Your task to perform on an android device: empty trash in google photos Image 0: 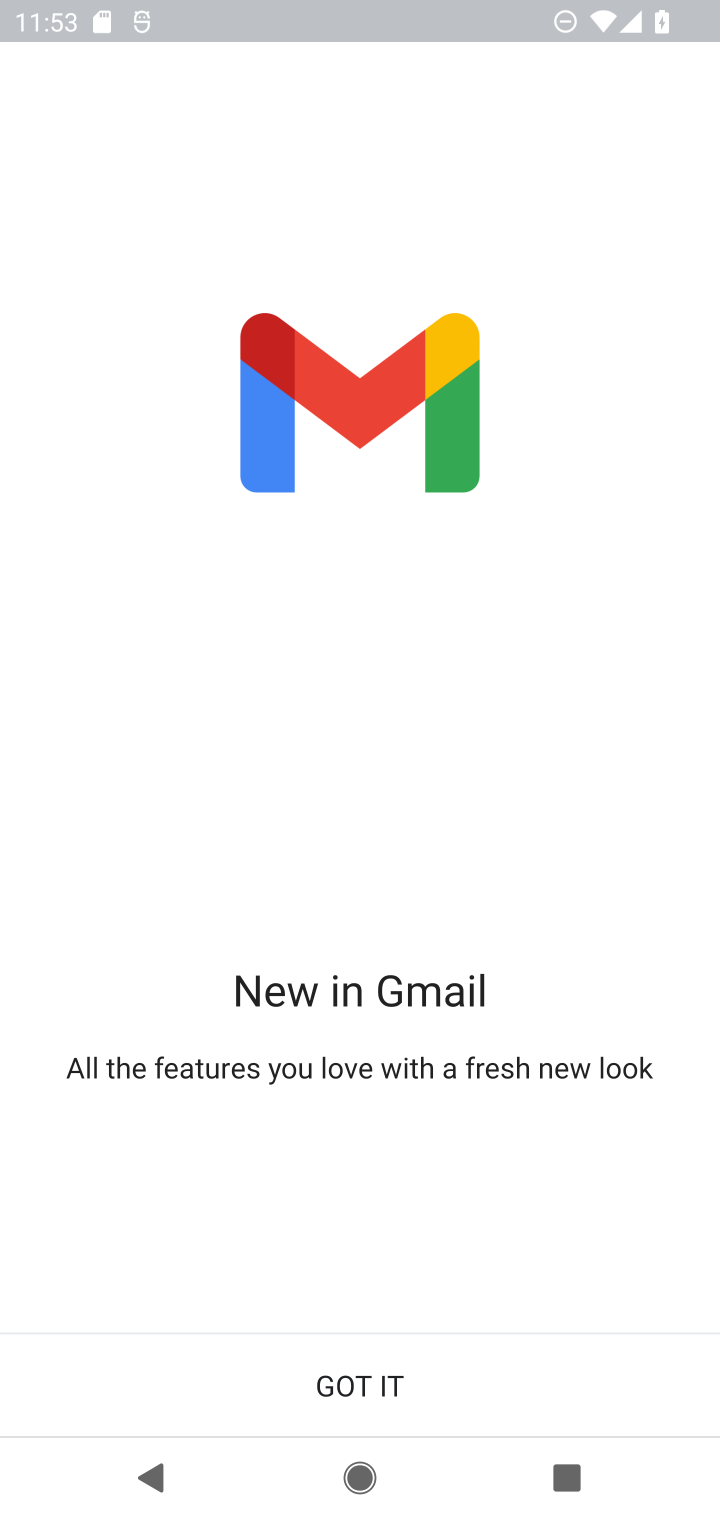
Step 0: press home button
Your task to perform on an android device: empty trash in google photos Image 1: 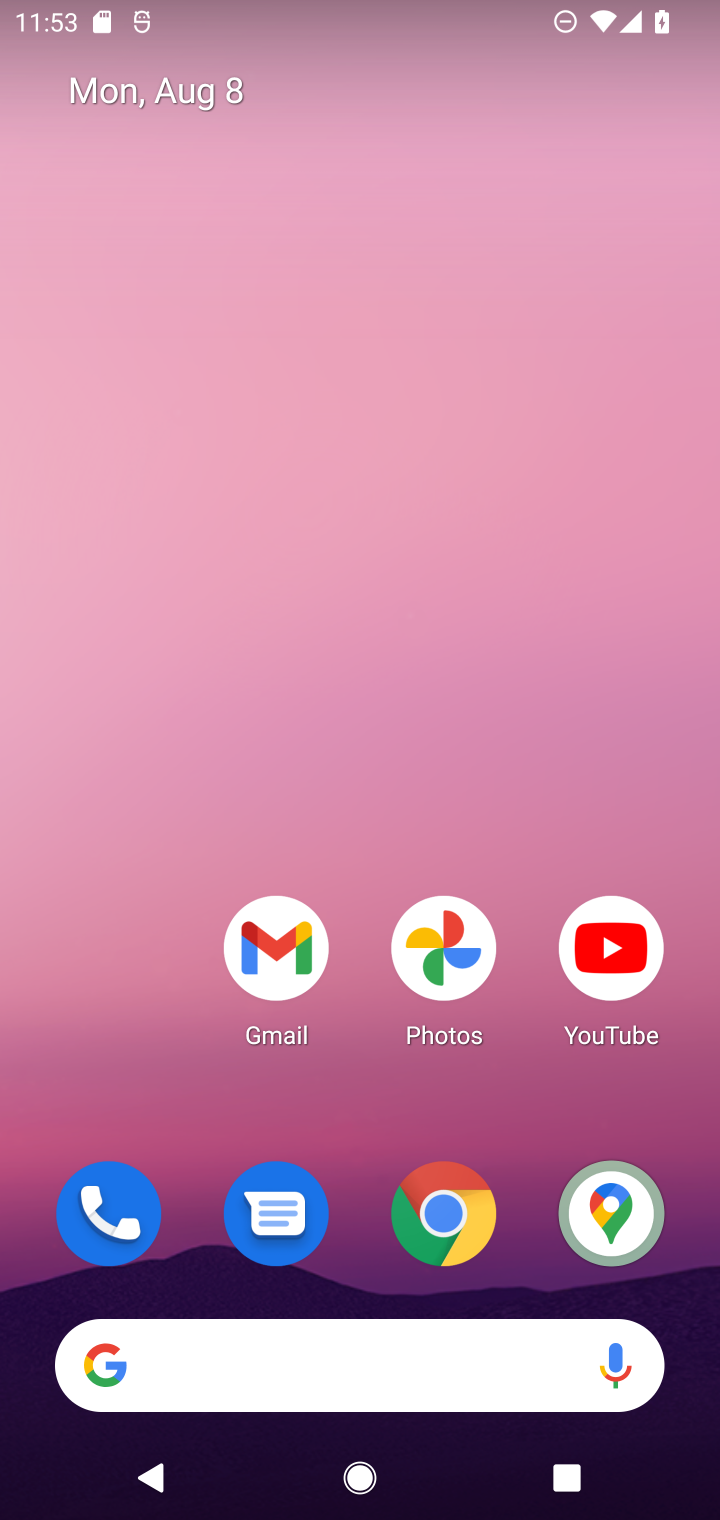
Step 1: click (446, 934)
Your task to perform on an android device: empty trash in google photos Image 2: 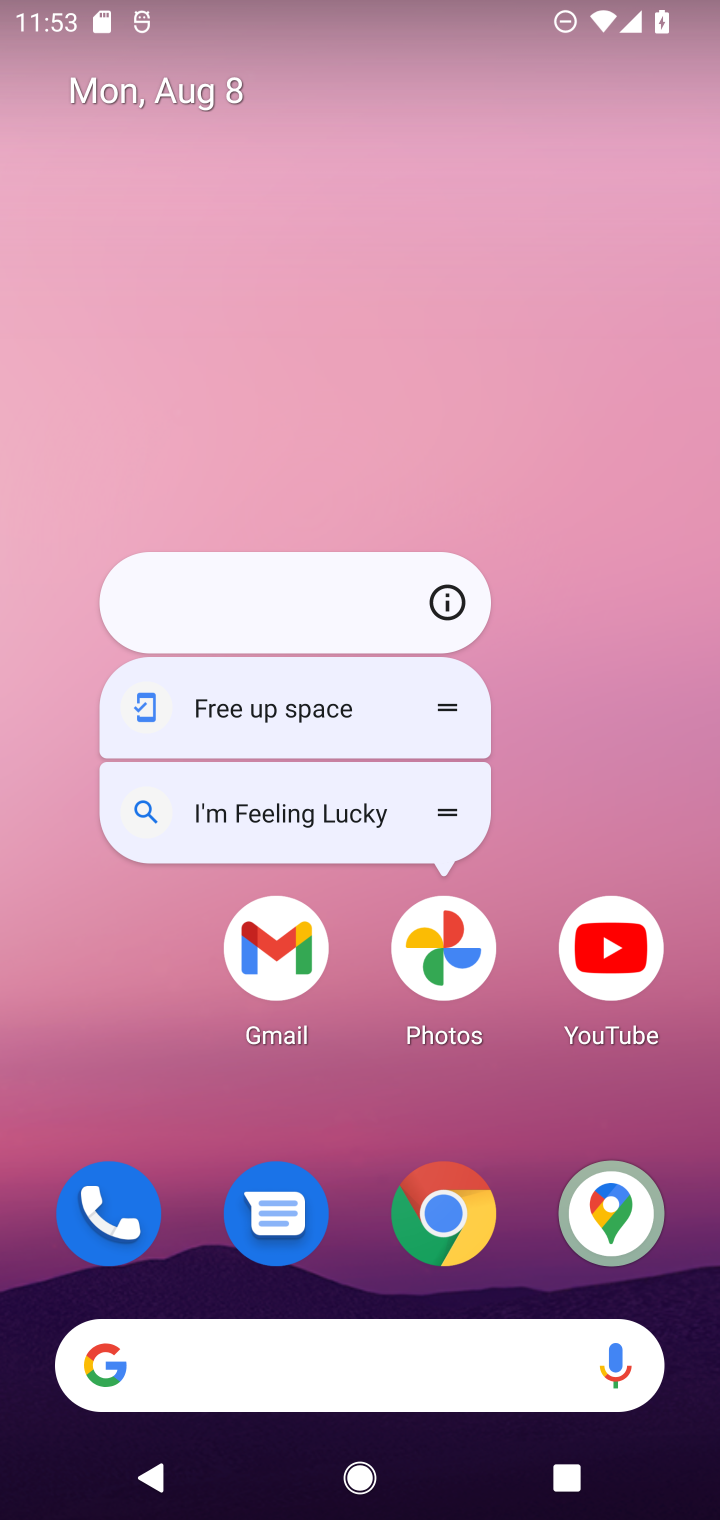
Step 2: click (553, 732)
Your task to perform on an android device: empty trash in google photos Image 3: 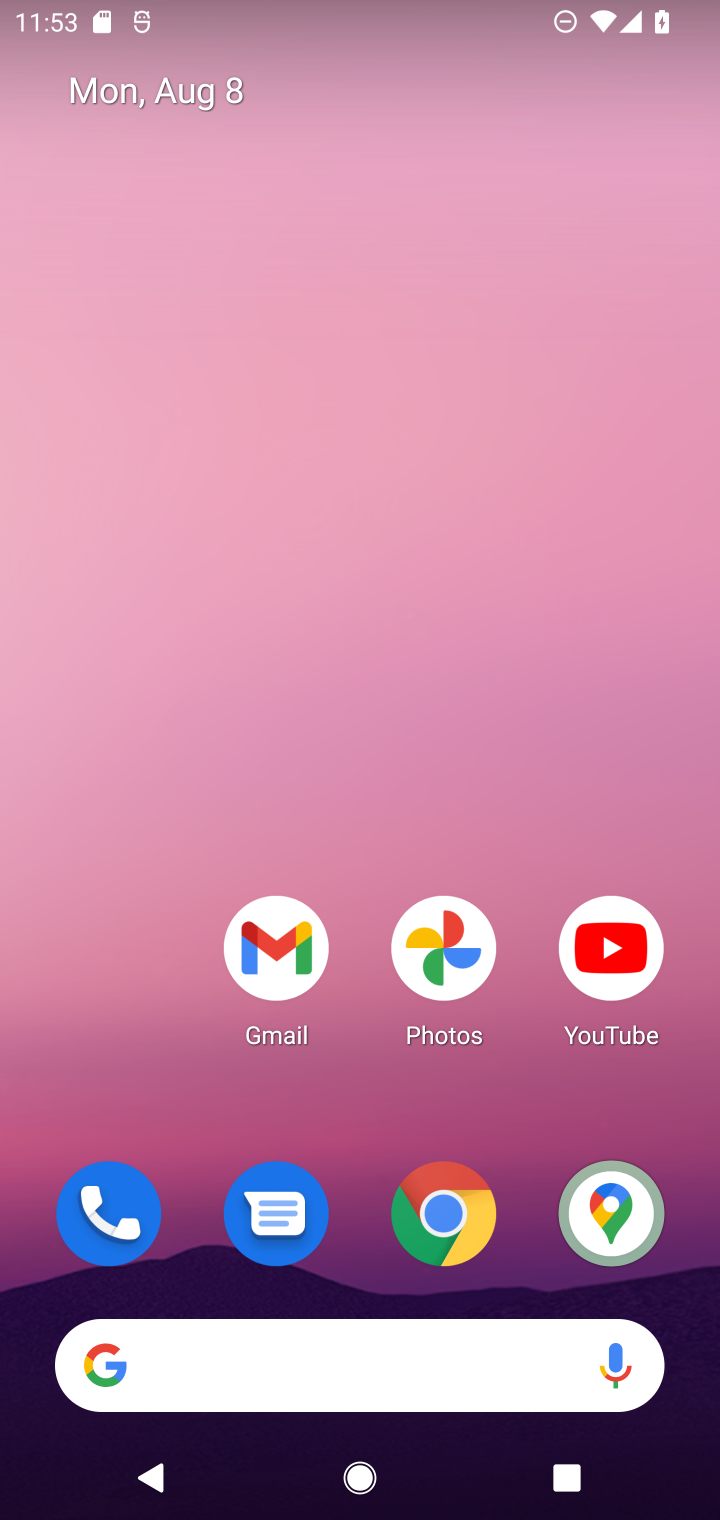
Step 3: drag from (528, 869) to (571, 0)
Your task to perform on an android device: empty trash in google photos Image 4: 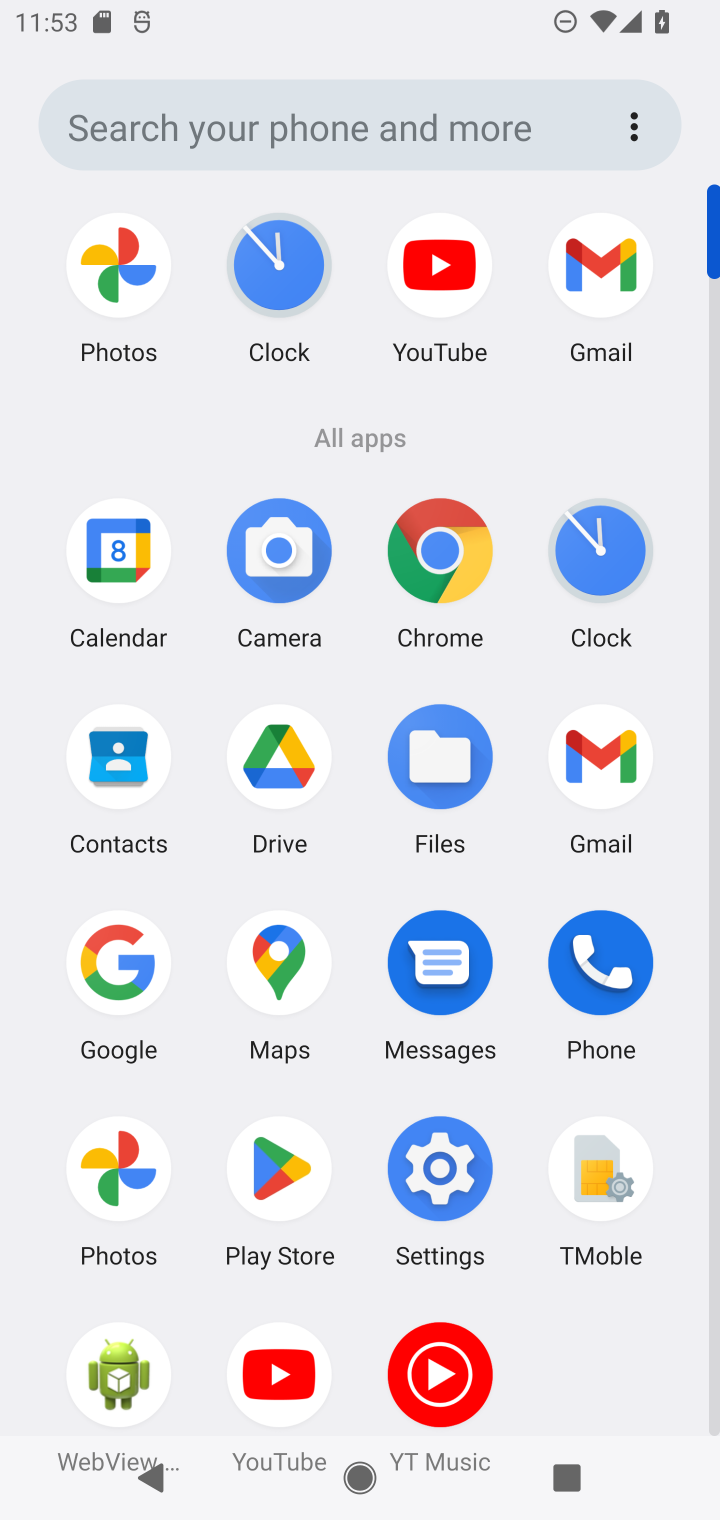
Step 4: click (109, 1159)
Your task to perform on an android device: empty trash in google photos Image 5: 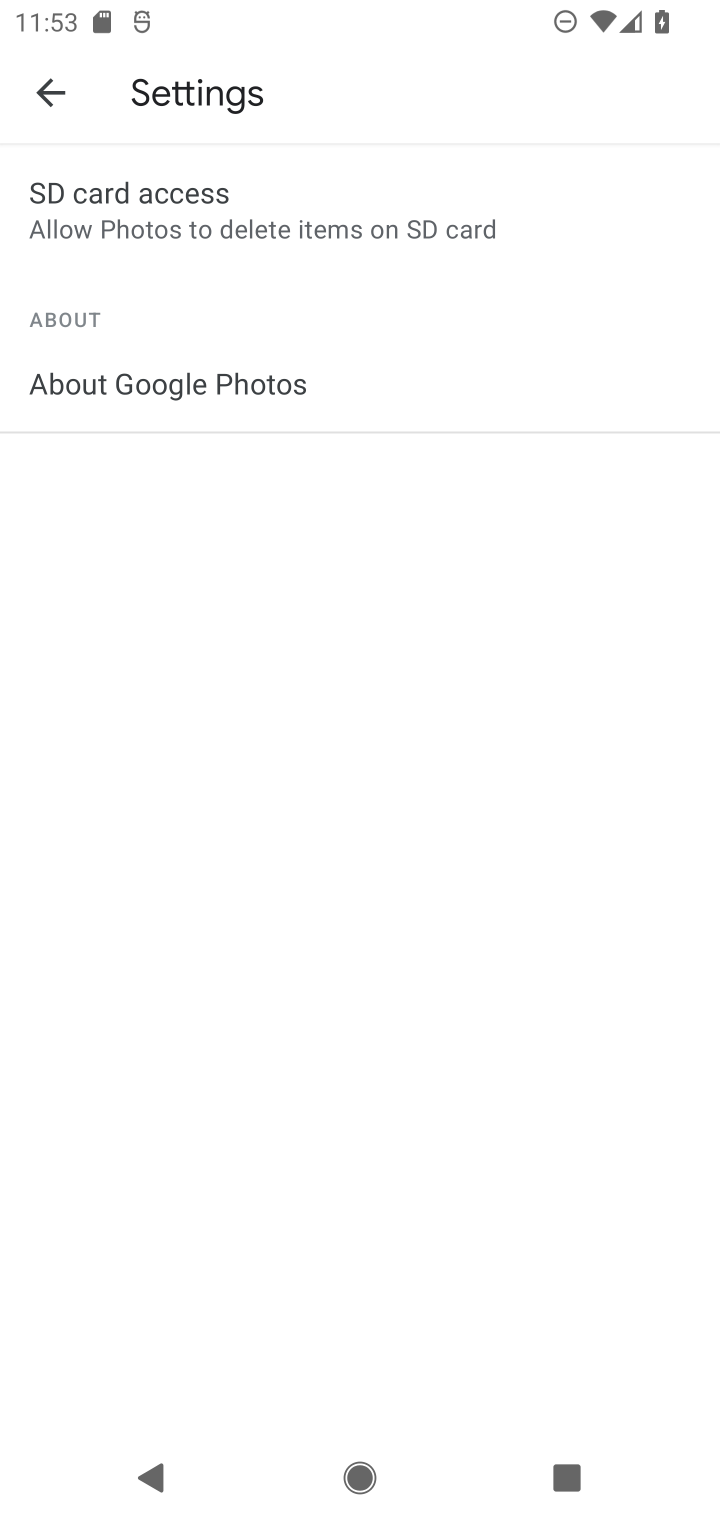
Step 5: click (49, 83)
Your task to perform on an android device: empty trash in google photos Image 6: 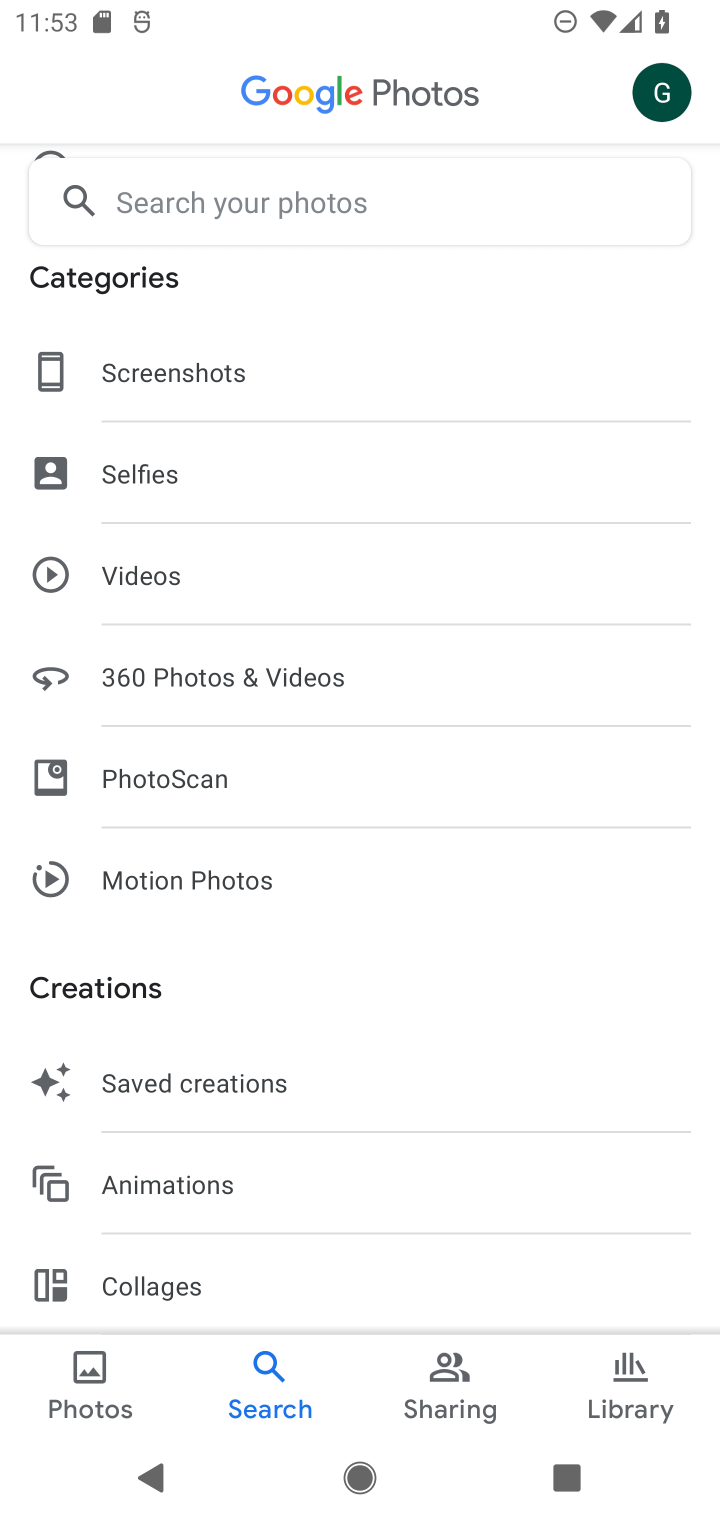
Step 6: drag from (266, 1233) to (344, 306)
Your task to perform on an android device: empty trash in google photos Image 7: 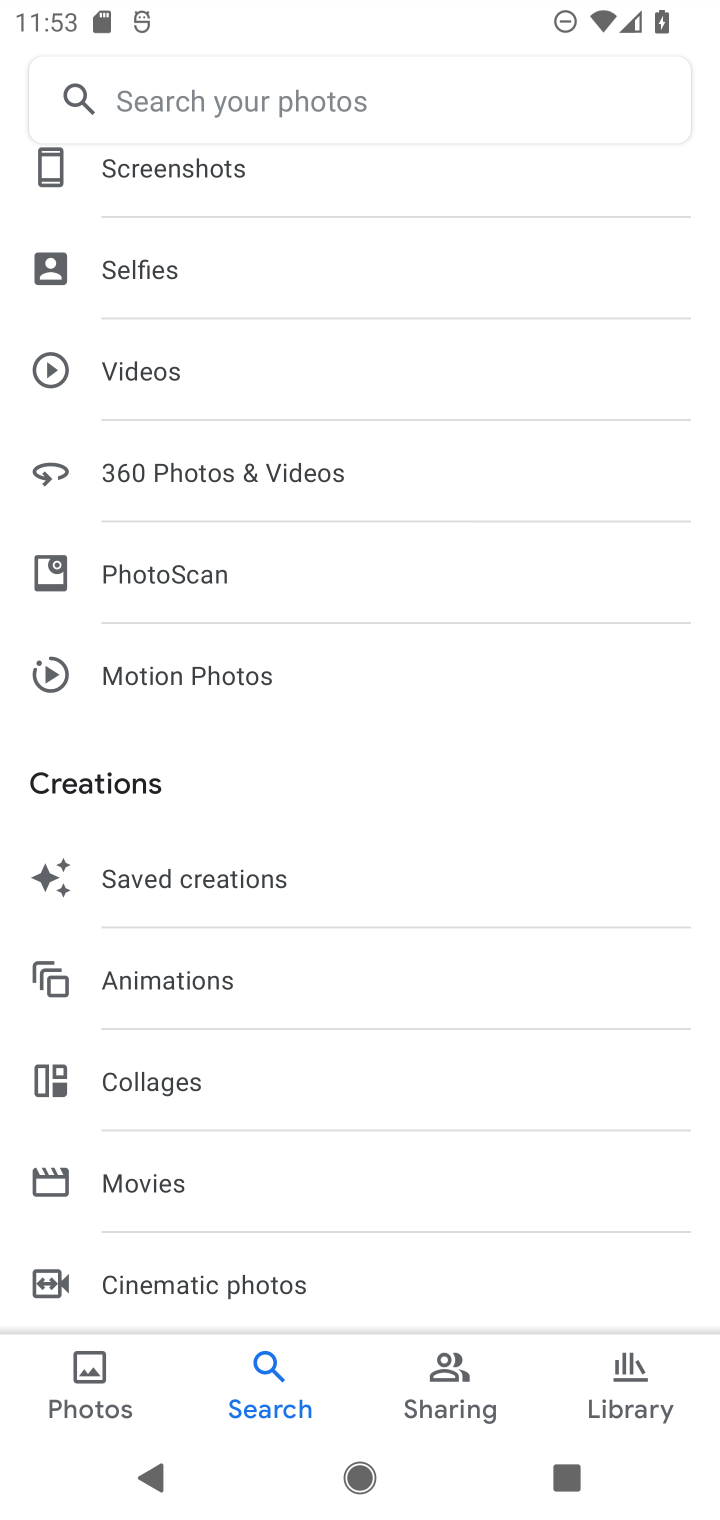
Step 7: click (622, 1346)
Your task to perform on an android device: empty trash in google photos Image 8: 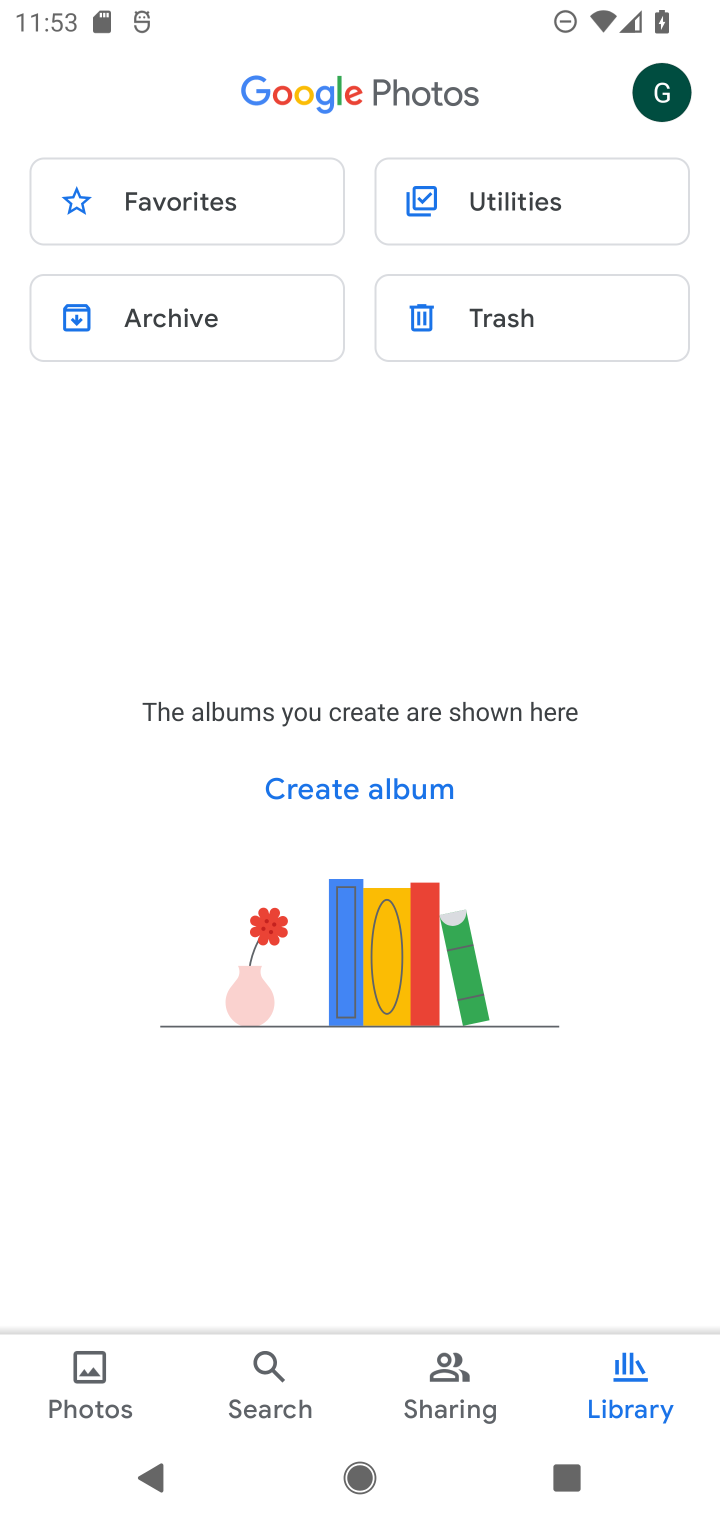
Step 8: click (458, 316)
Your task to perform on an android device: empty trash in google photos Image 9: 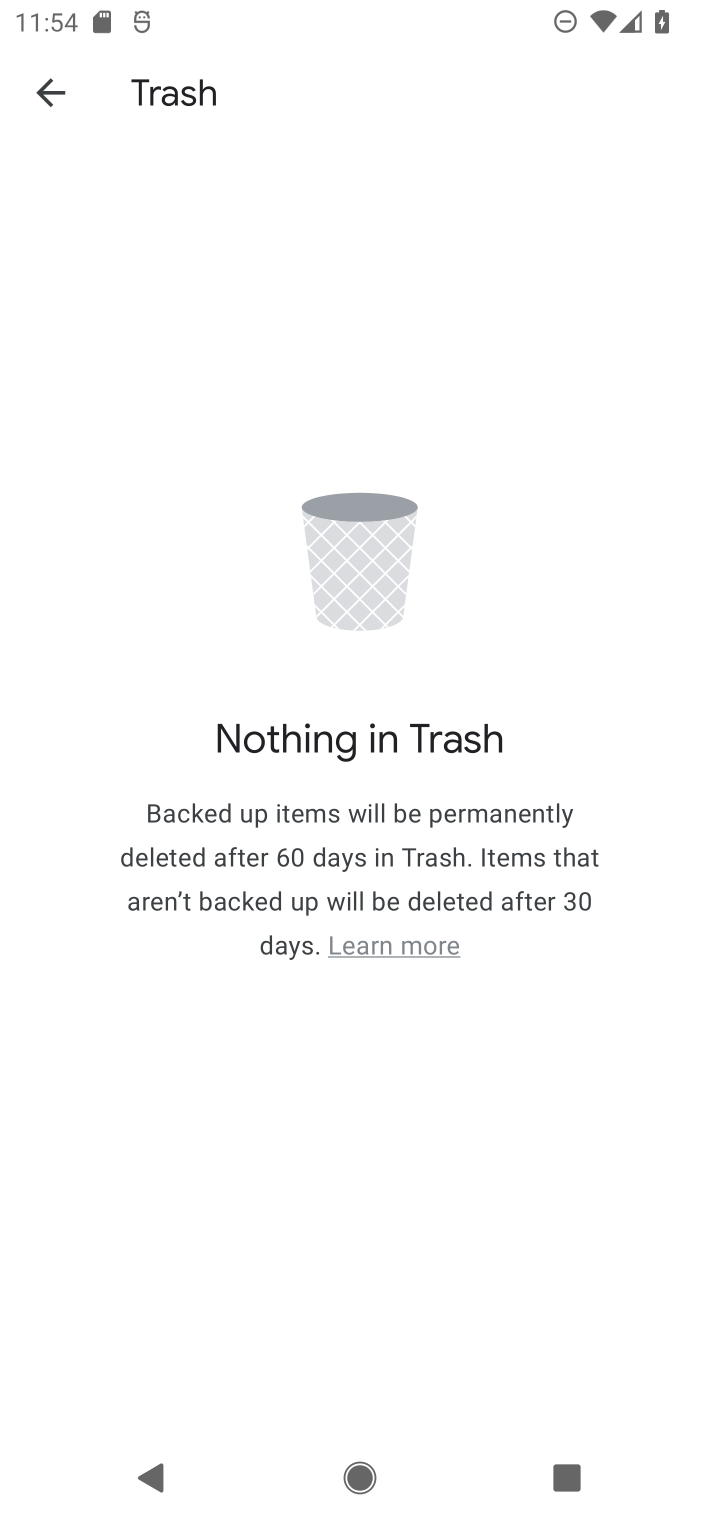
Step 9: task complete